Your task to perform on an android device: snooze an email in the gmail app Image 0: 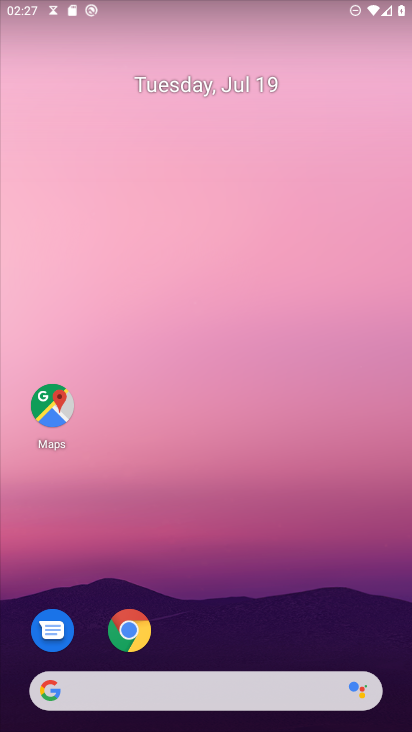
Step 0: press home button
Your task to perform on an android device: snooze an email in the gmail app Image 1: 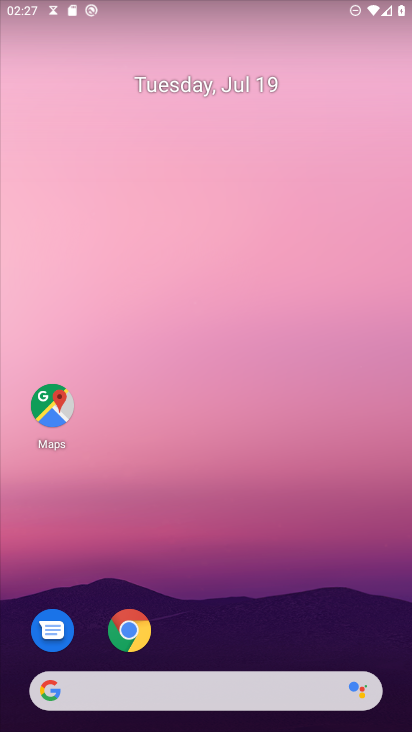
Step 1: drag from (214, 633) to (280, 227)
Your task to perform on an android device: snooze an email in the gmail app Image 2: 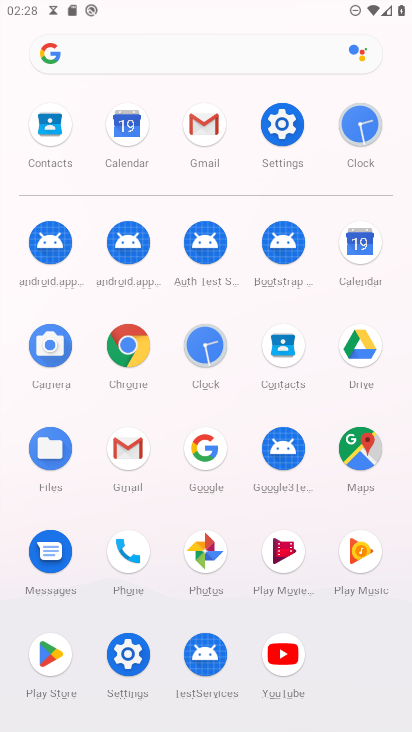
Step 2: click (204, 128)
Your task to perform on an android device: snooze an email in the gmail app Image 3: 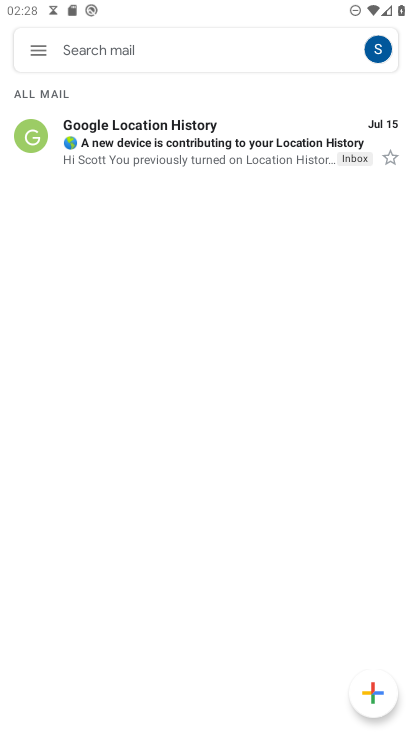
Step 3: click (35, 136)
Your task to perform on an android device: snooze an email in the gmail app Image 4: 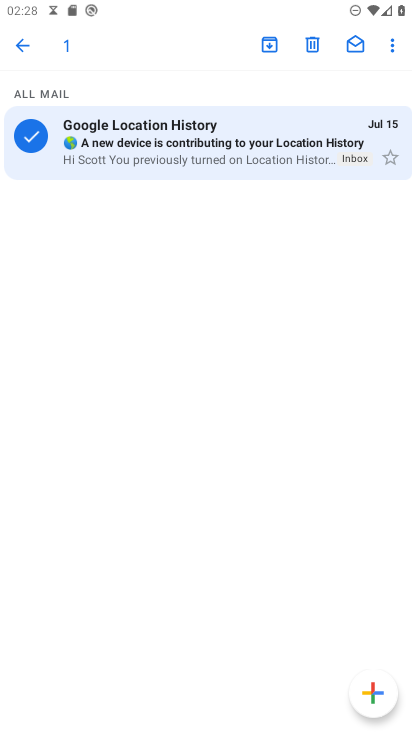
Step 4: click (395, 44)
Your task to perform on an android device: snooze an email in the gmail app Image 5: 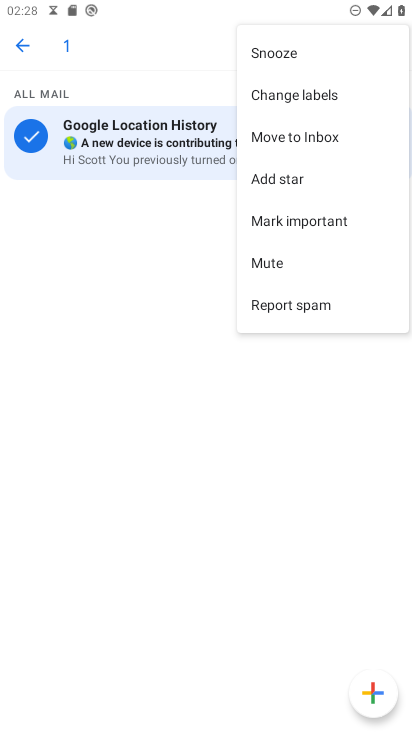
Step 5: click (280, 49)
Your task to perform on an android device: snooze an email in the gmail app Image 6: 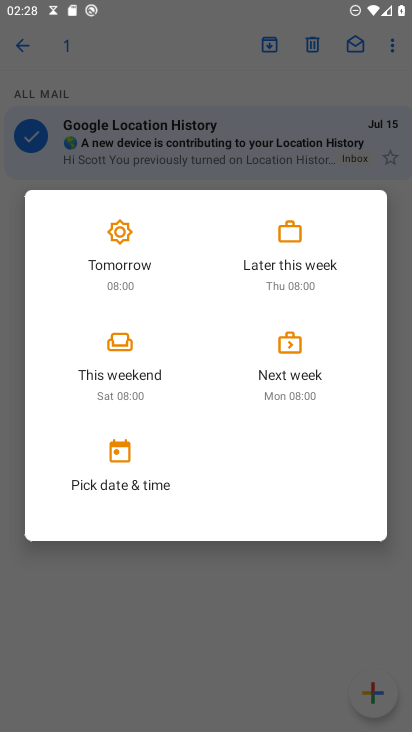
Step 6: click (126, 262)
Your task to perform on an android device: snooze an email in the gmail app Image 7: 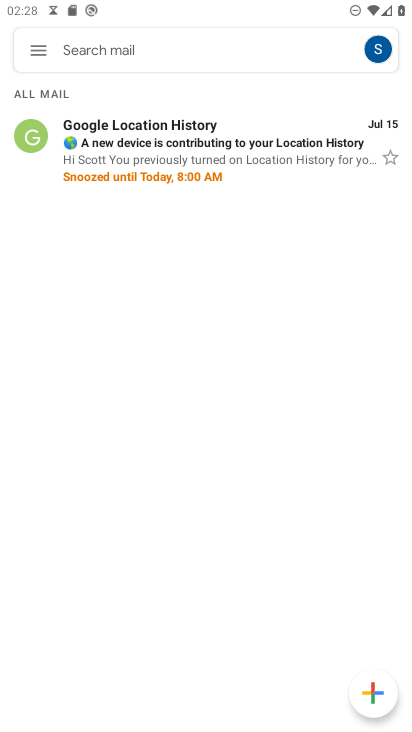
Step 7: task complete